Your task to perform on an android device: change notification settings in the gmail app Image 0: 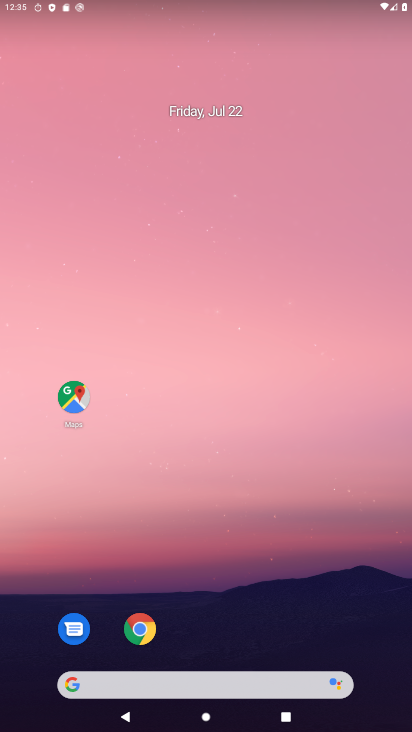
Step 0: drag from (222, 646) to (267, 64)
Your task to perform on an android device: change notification settings in the gmail app Image 1: 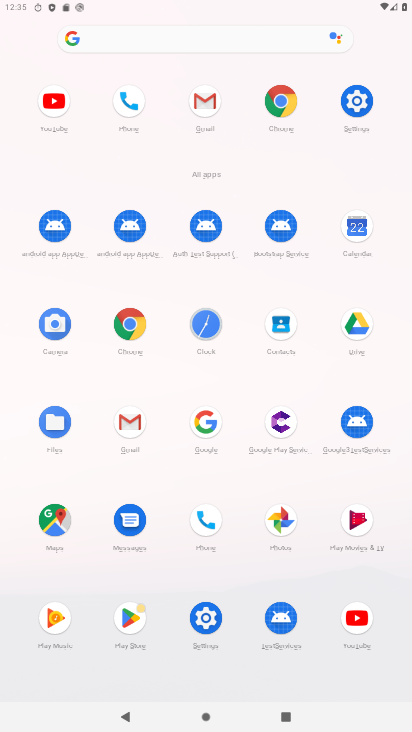
Step 1: click (131, 412)
Your task to perform on an android device: change notification settings in the gmail app Image 2: 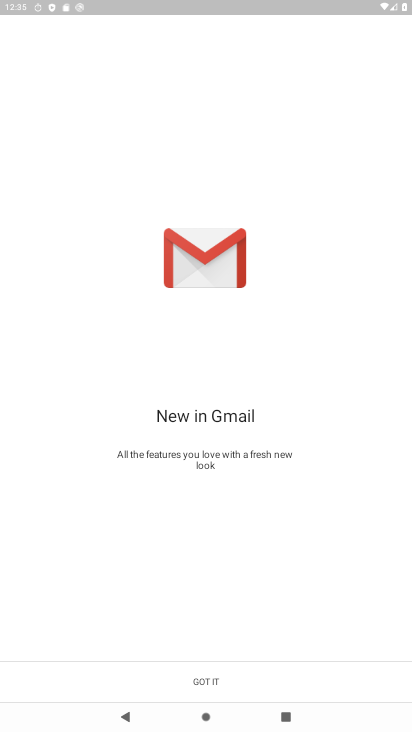
Step 2: click (224, 684)
Your task to perform on an android device: change notification settings in the gmail app Image 3: 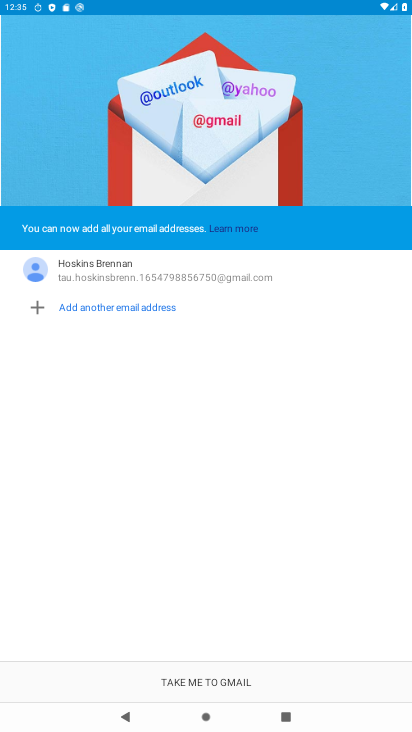
Step 3: click (217, 679)
Your task to perform on an android device: change notification settings in the gmail app Image 4: 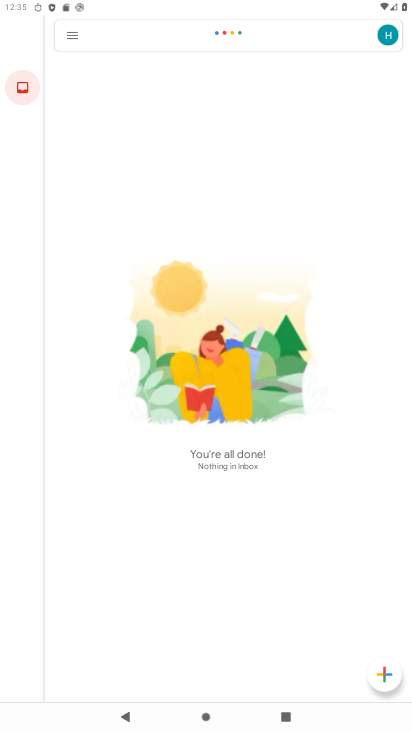
Step 4: click (70, 34)
Your task to perform on an android device: change notification settings in the gmail app Image 5: 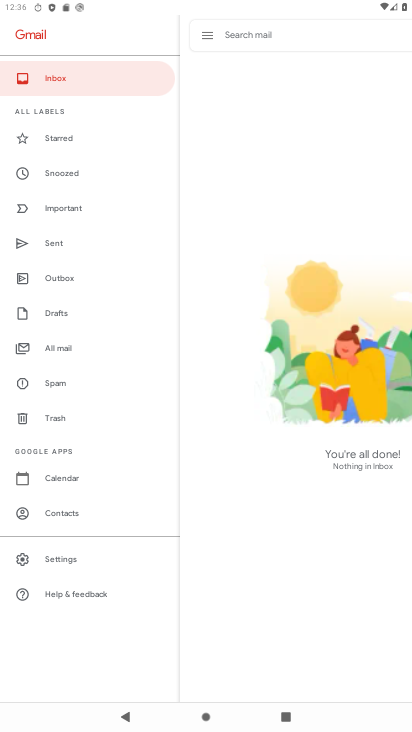
Step 5: click (66, 560)
Your task to perform on an android device: change notification settings in the gmail app Image 6: 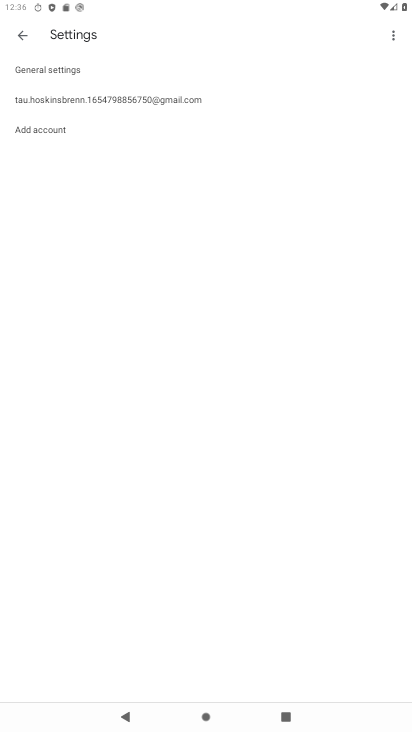
Step 6: click (96, 91)
Your task to perform on an android device: change notification settings in the gmail app Image 7: 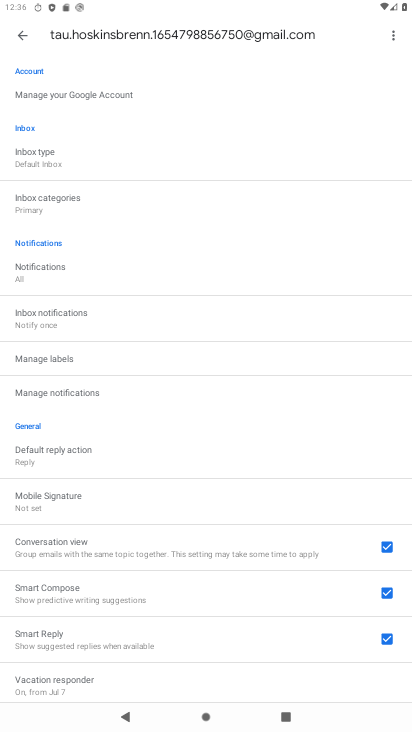
Step 7: click (56, 273)
Your task to perform on an android device: change notification settings in the gmail app Image 8: 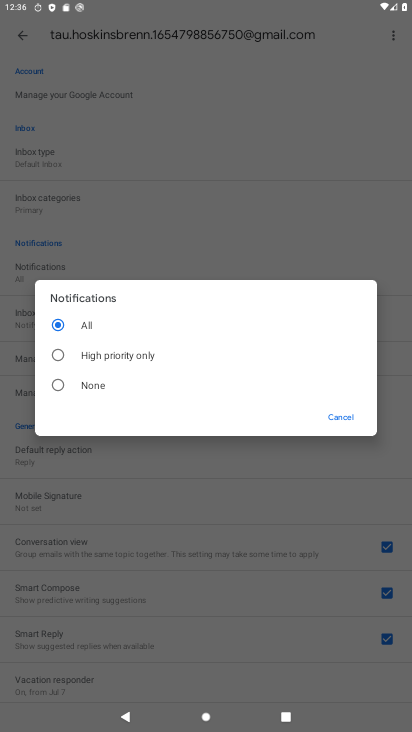
Step 8: click (53, 383)
Your task to perform on an android device: change notification settings in the gmail app Image 9: 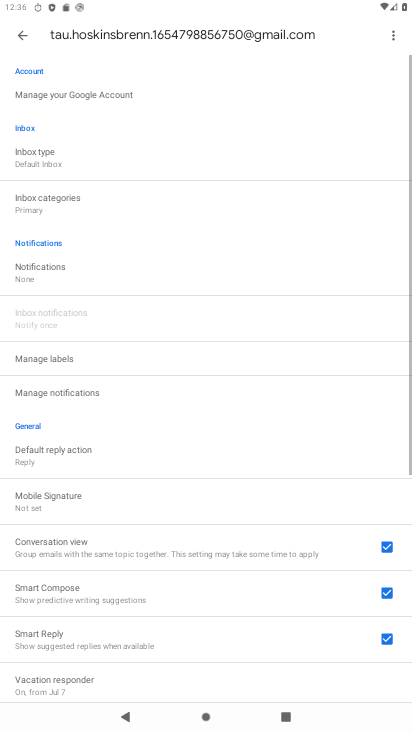
Step 9: task complete